Your task to perform on an android device: Search for sushi restaurants on Maps Image 0: 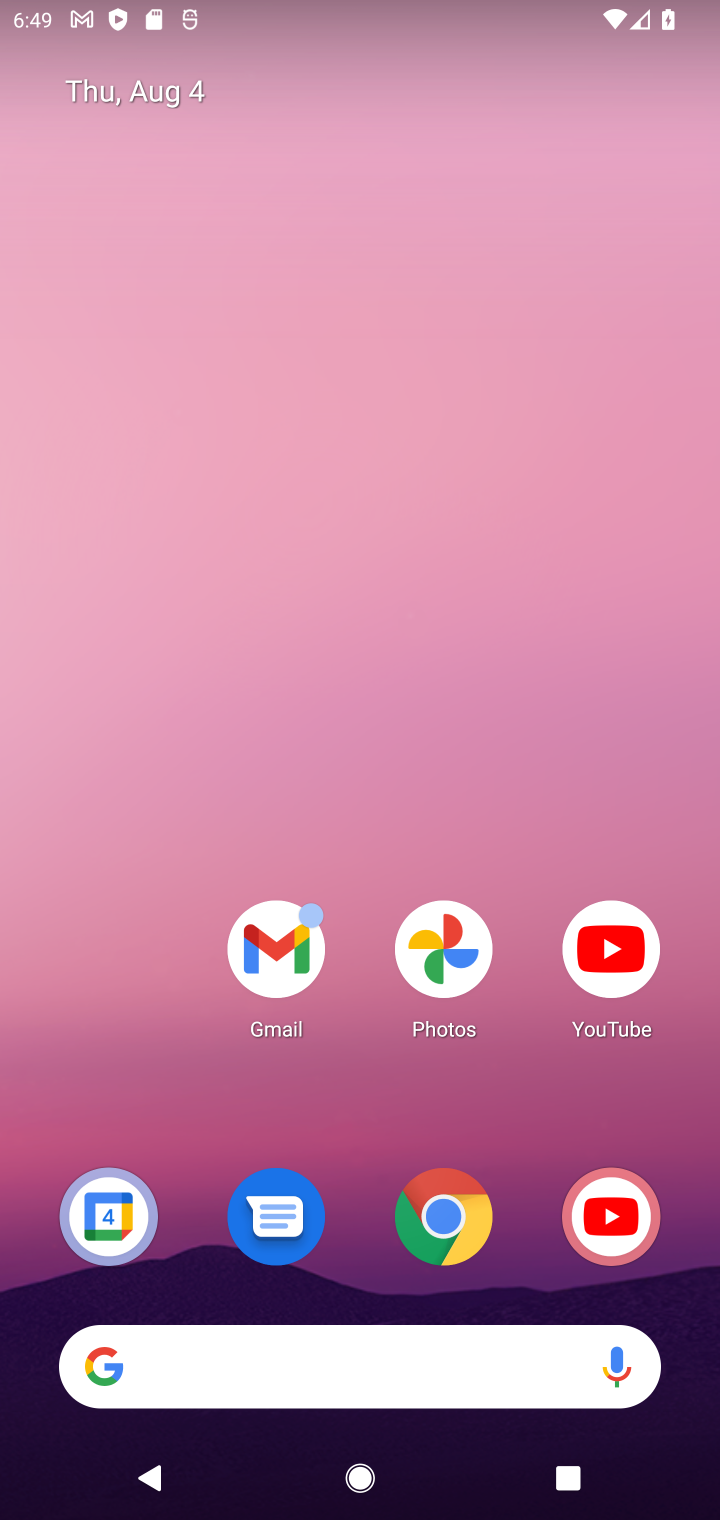
Step 0: drag from (359, 1248) to (324, 236)
Your task to perform on an android device: Search for sushi restaurants on Maps Image 1: 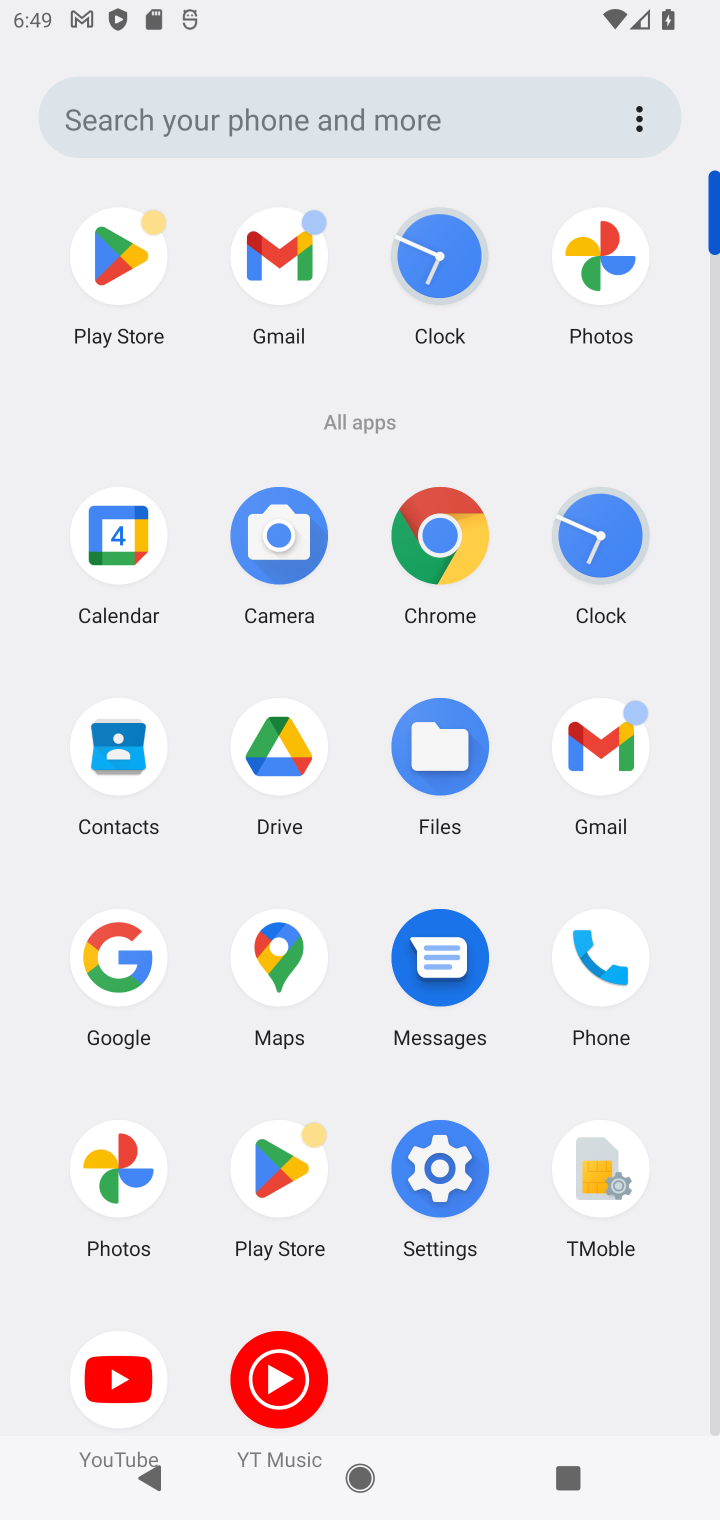
Step 1: click (272, 953)
Your task to perform on an android device: Search for sushi restaurants on Maps Image 2: 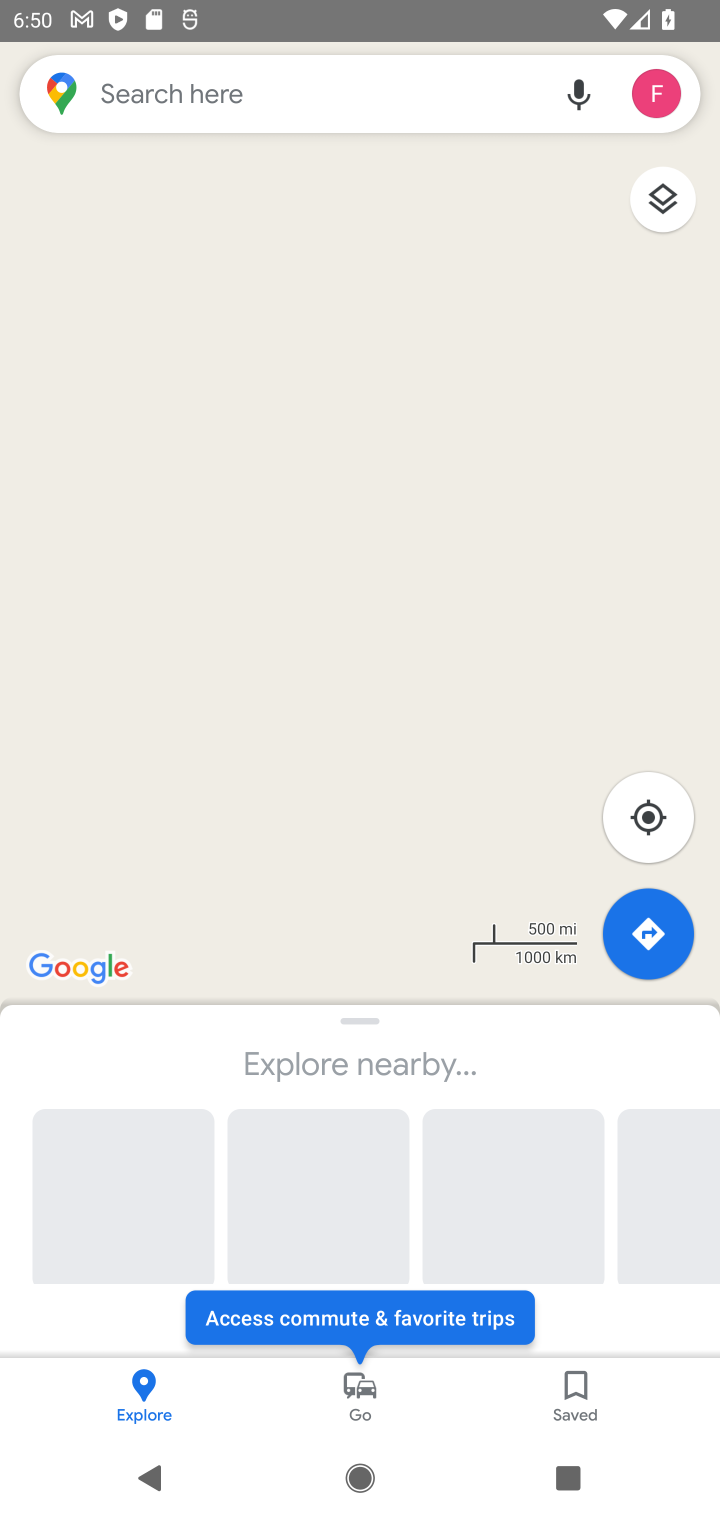
Step 2: click (306, 92)
Your task to perform on an android device: Search for sushi restaurants on Maps Image 3: 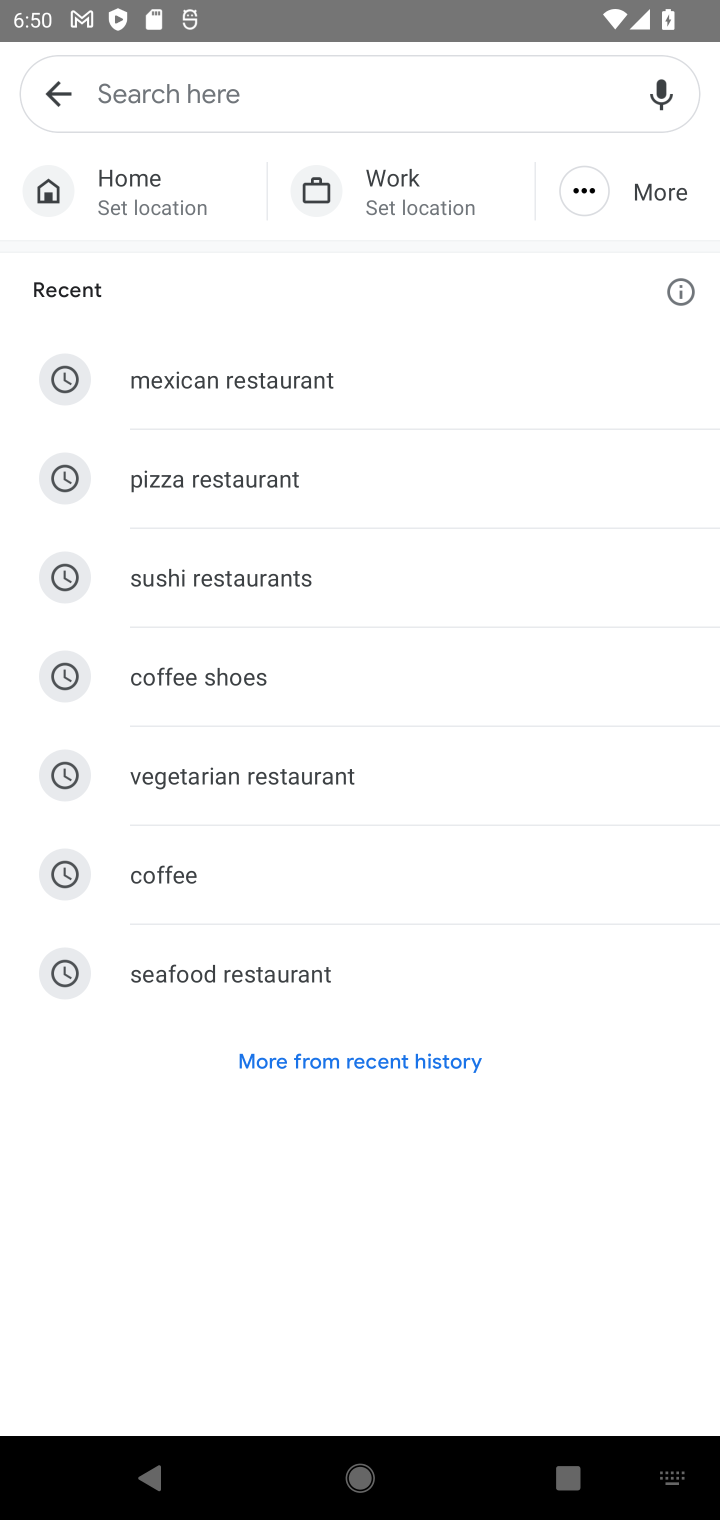
Step 3: type "Sushi restaurants"
Your task to perform on an android device: Search for sushi restaurants on Maps Image 4: 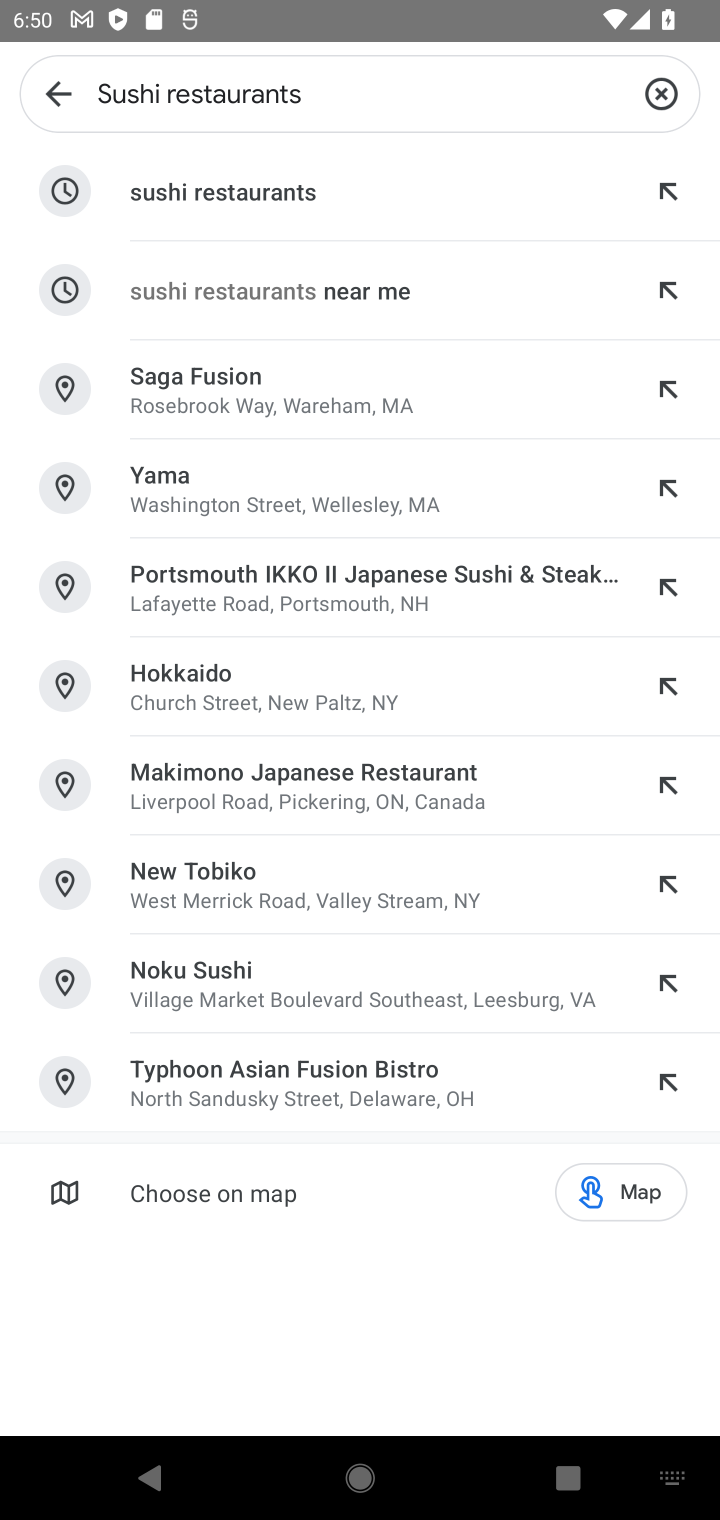
Step 4: click (263, 189)
Your task to perform on an android device: Search for sushi restaurants on Maps Image 5: 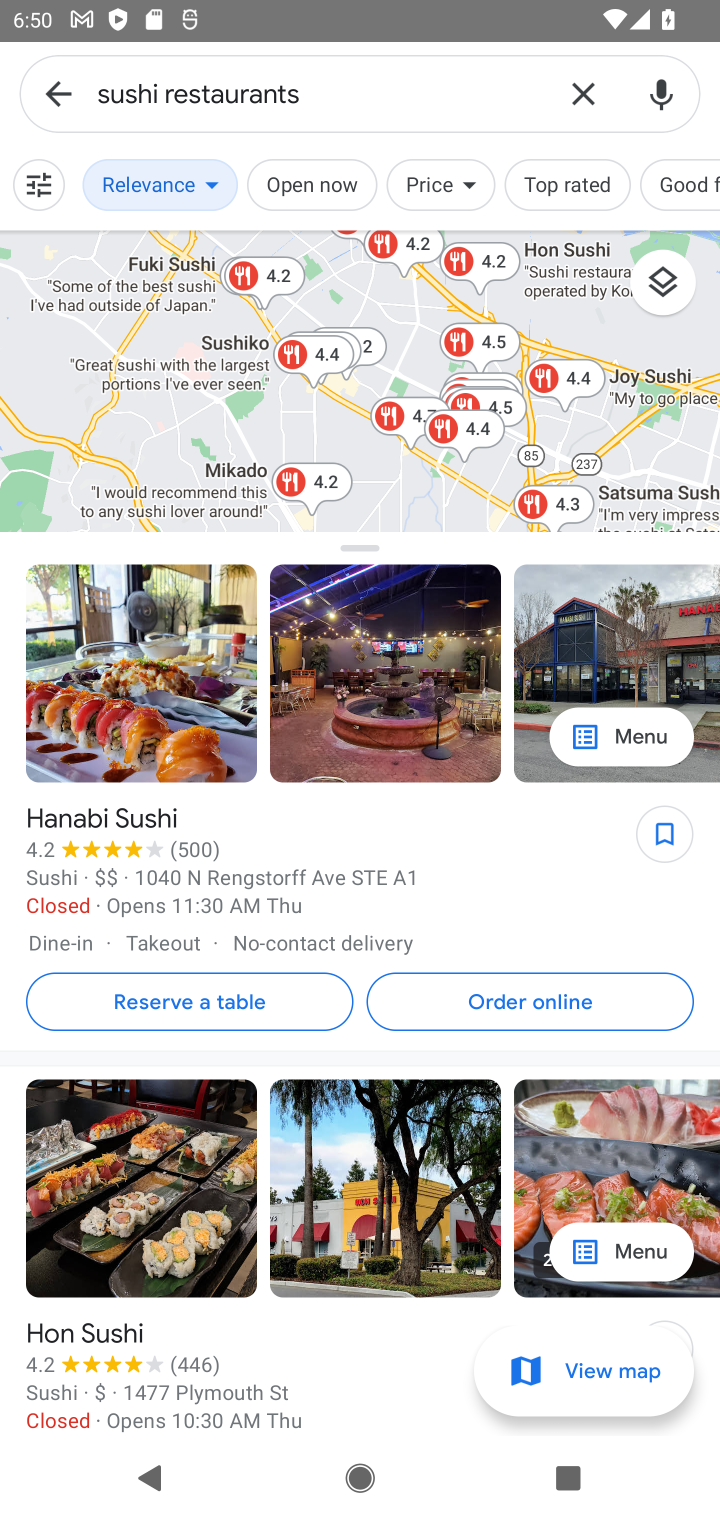
Step 5: task complete